Your task to perform on an android device: Open the stopwatch Image 0: 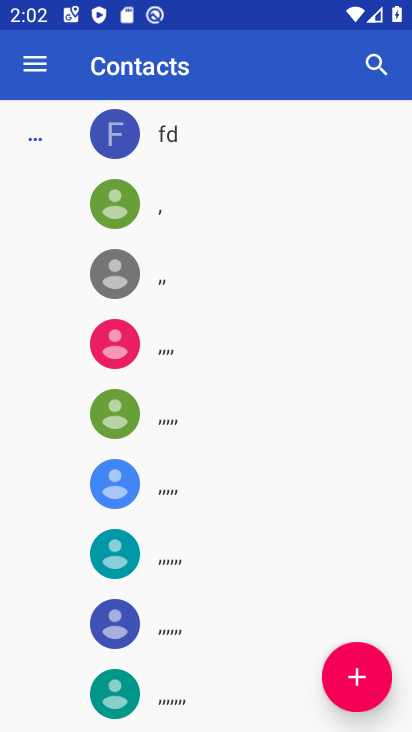
Step 0: press home button
Your task to perform on an android device: Open the stopwatch Image 1: 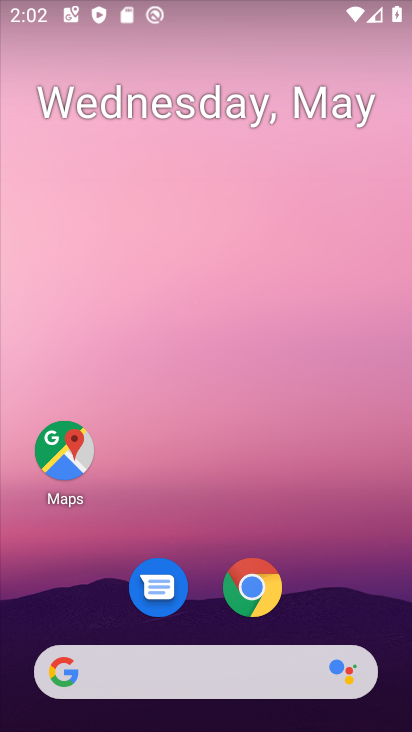
Step 1: drag from (363, 644) to (340, 0)
Your task to perform on an android device: Open the stopwatch Image 2: 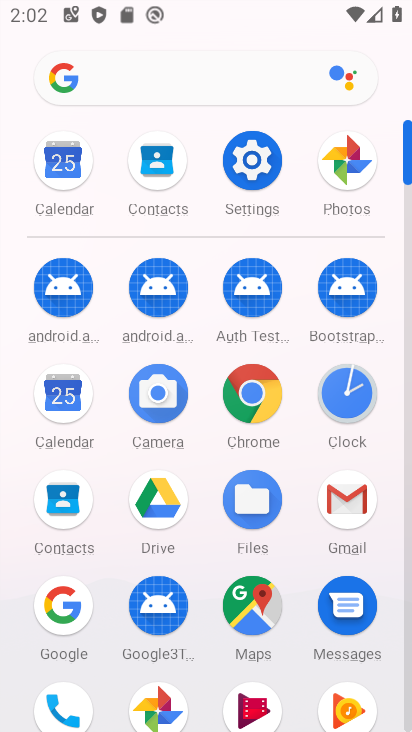
Step 2: click (353, 402)
Your task to perform on an android device: Open the stopwatch Image 3: 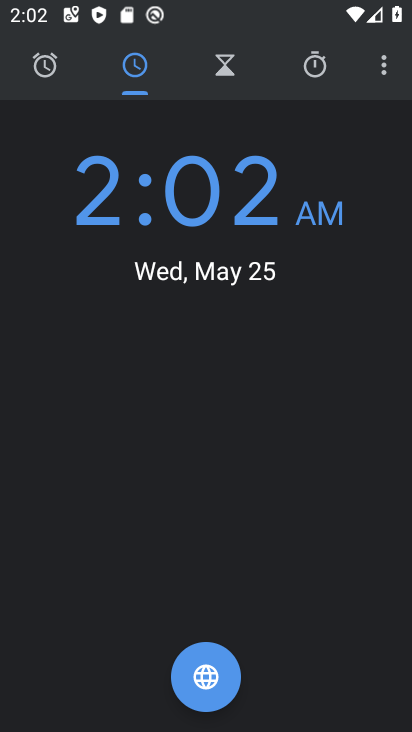
Step 3: click (328, 67)
Your task to perform on an android device: Open the stopwatch Image 4: 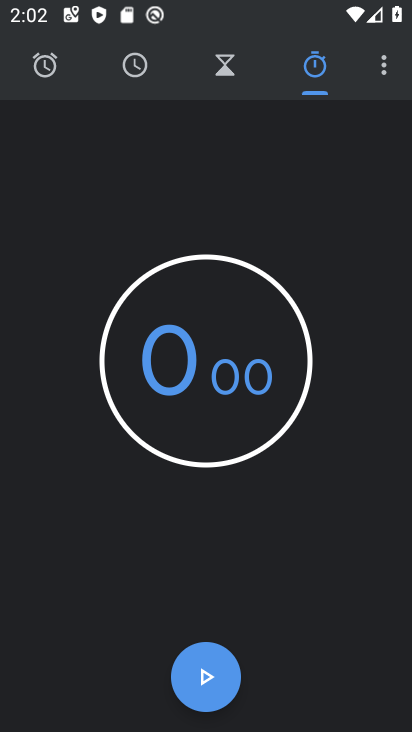
Step 4: task complete